Your task to perform on an android device: install app "Google Drive" Image 0: 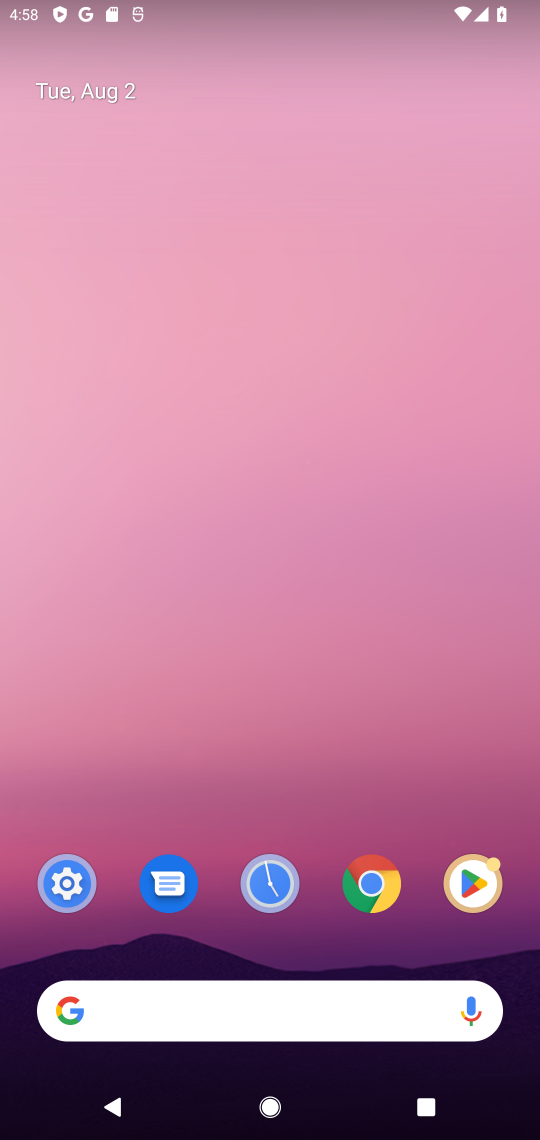
Step 0: drag from (253, 925) to (142, 0)
Your task to perform on an android device: install app "Google Drive" Image 1: 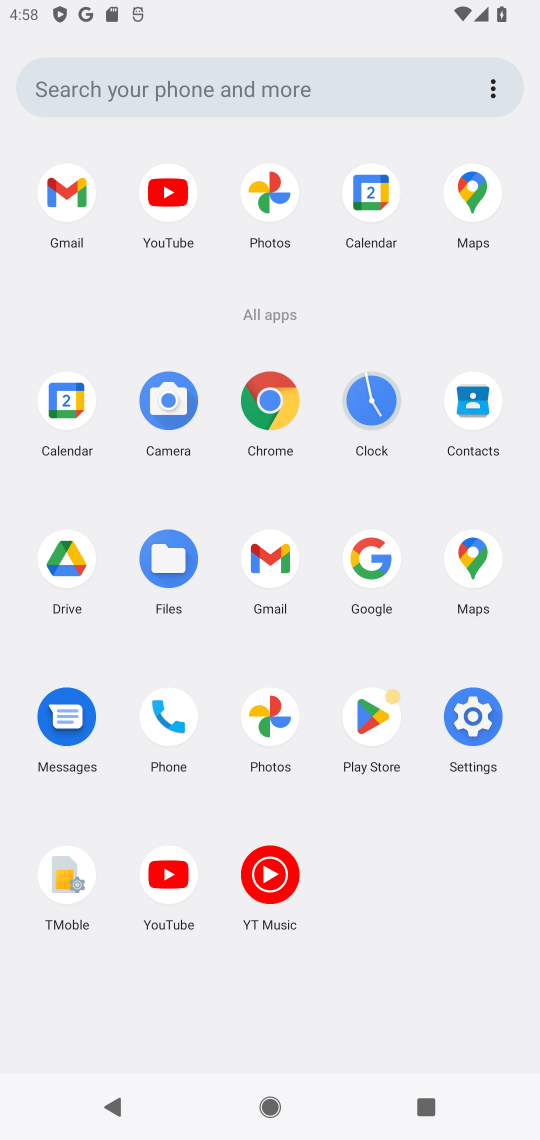
Step 1: click (363, 716)
Your task to perform on an android device: install app "Google Drive" Image 2: 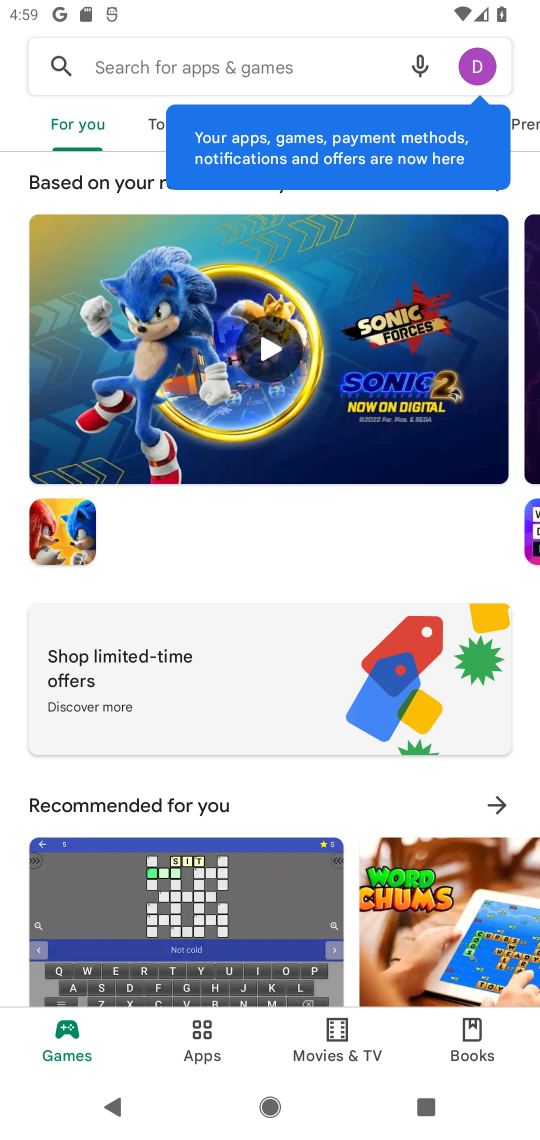
Step 2: click (100, 70)
Your task to perform on an android device: install app "Google Drive" Image 3: 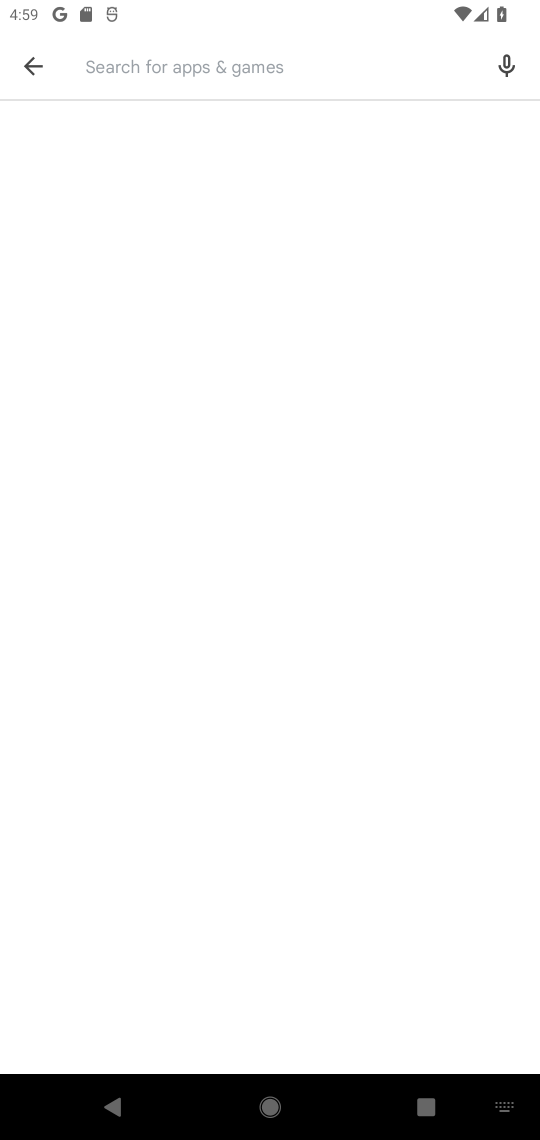
Step 3: type "Google Drive"
Your task to perform on an android device: install app "Google Drive" Image 4: 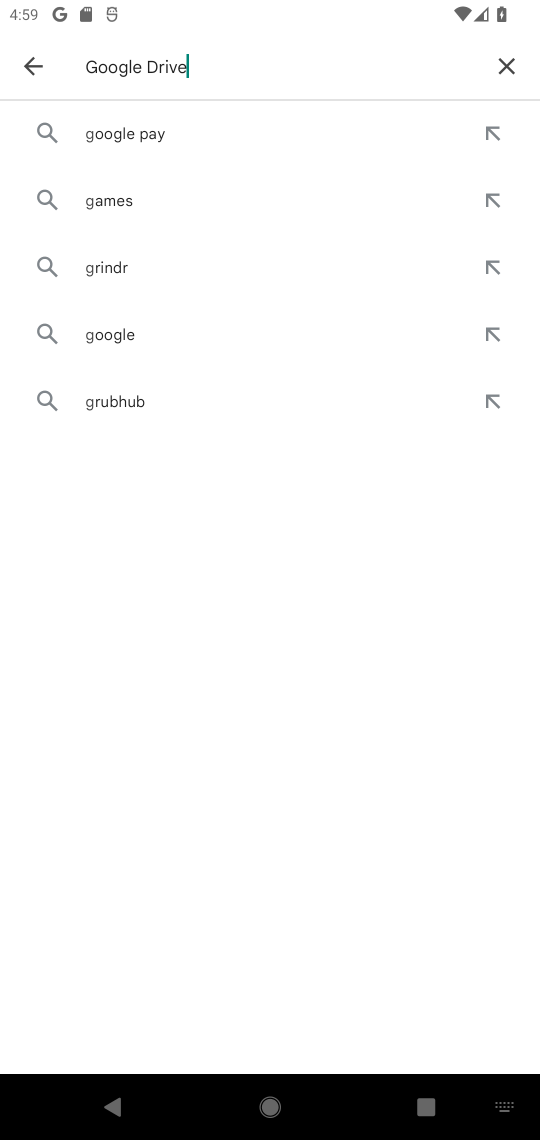
Step 4: type ""
Your task to perform on an android device: install app "Google Drive" Image 5: 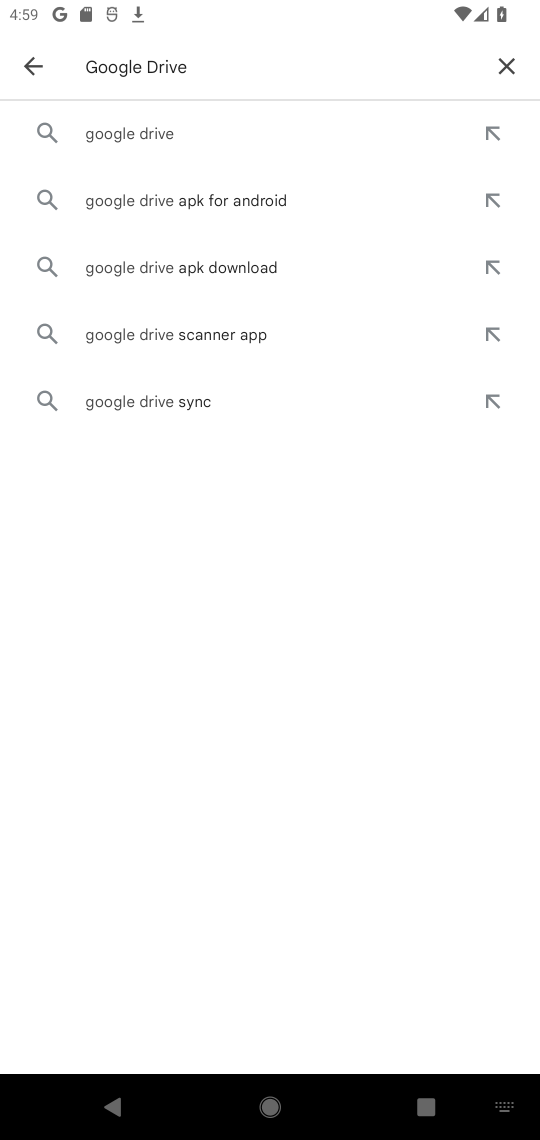
Step 5: click (121, 140)
Your task to perform on an android device: install app "Google Drive" Image 6: 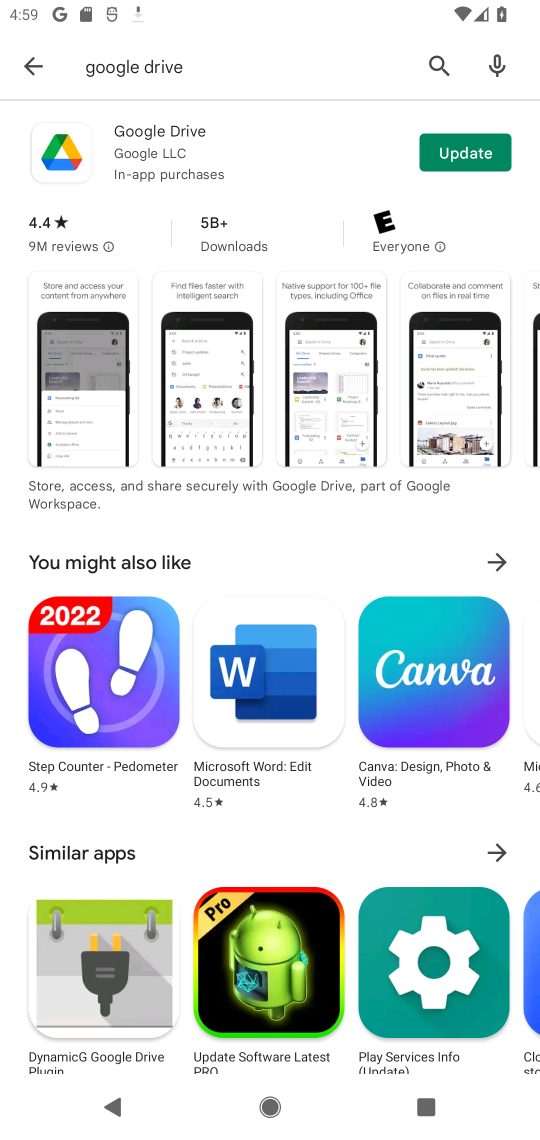
Step 6: click (496, 152)
Your task to perform on an android device: install app "Google Drive" Image 7: 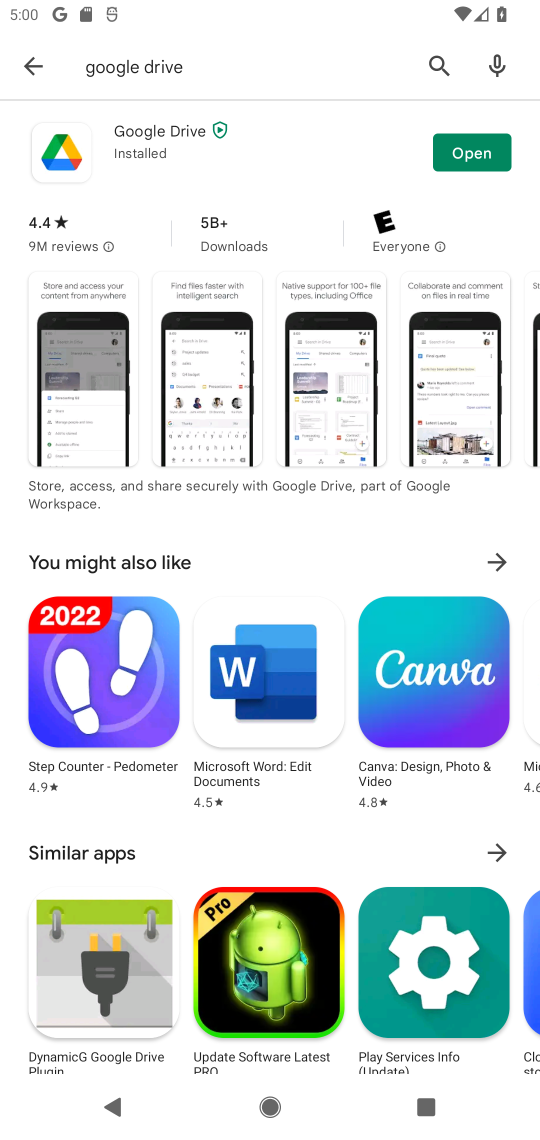
Step 7: click (490, 151)
Your task to perform on an android device: install app "Google Drive" Image 8: 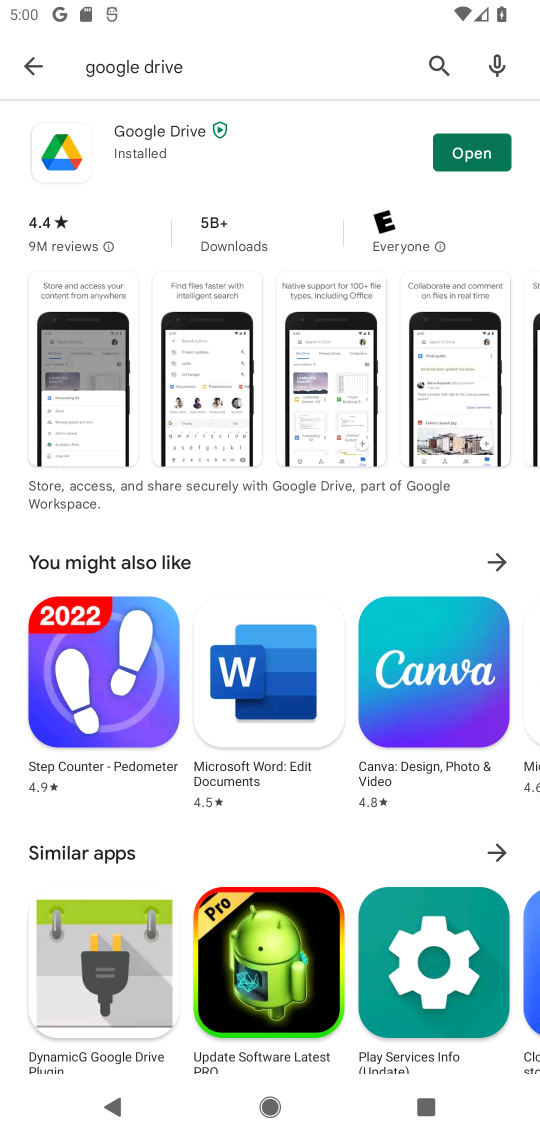
Step 8: task complete